Your task to perform on an android device: see tabs open on other devices in the chrome app Image 0: 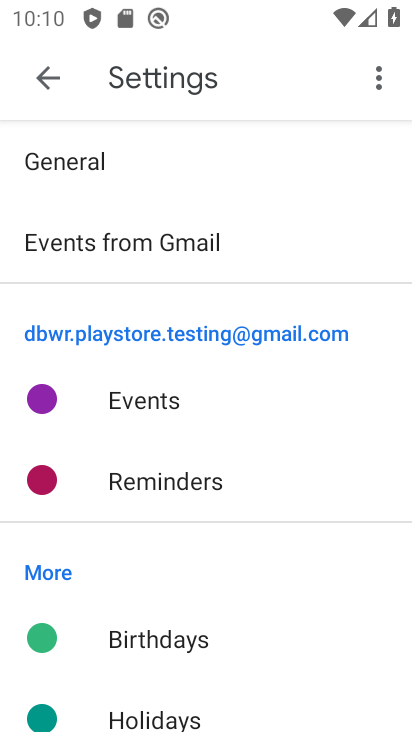
Step 0: press home button
Your task to perform on an android device: see tabs open on other devices in the chrome app Image 1: 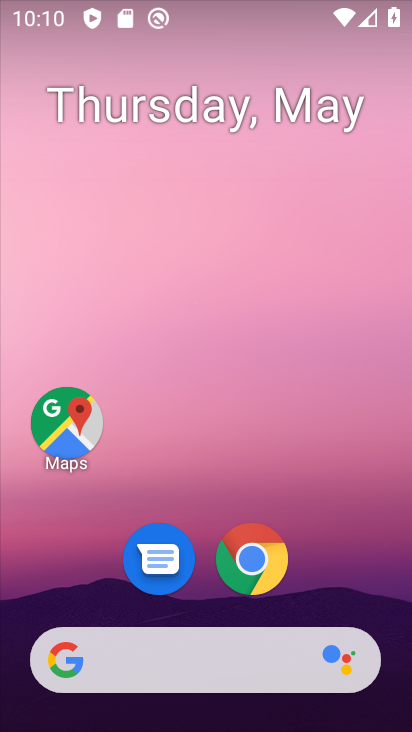
Step 1: drag from (344, 532) to (304, 64)
Your task to perform on an android device: see tabs open on other devices in the chrome app Image 2: 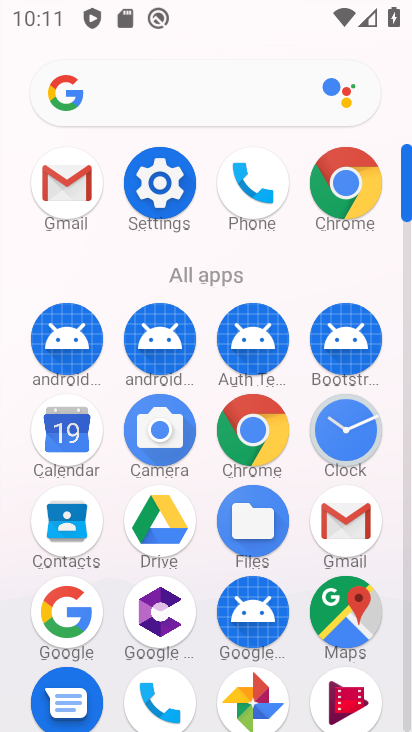
Step 2: click (342, 206)
Your task to perform on an android device: see tabs open on other devices in the chrome app Image 3: 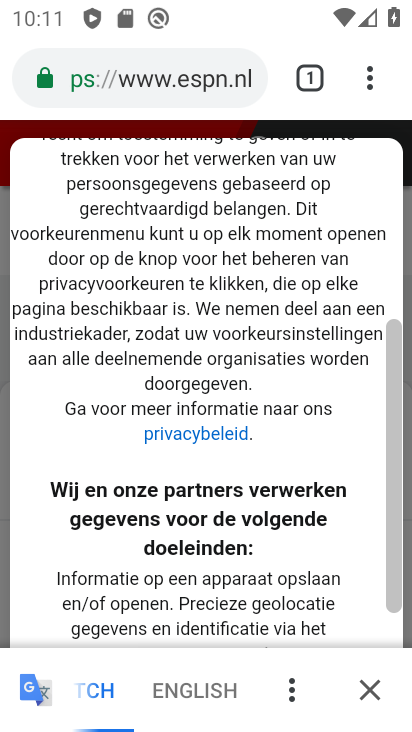
Step 3: drag from (362, 86) to (105, 388)
Your task to perform on an android device: see tabs open on other devices in the chrome app Image 4: 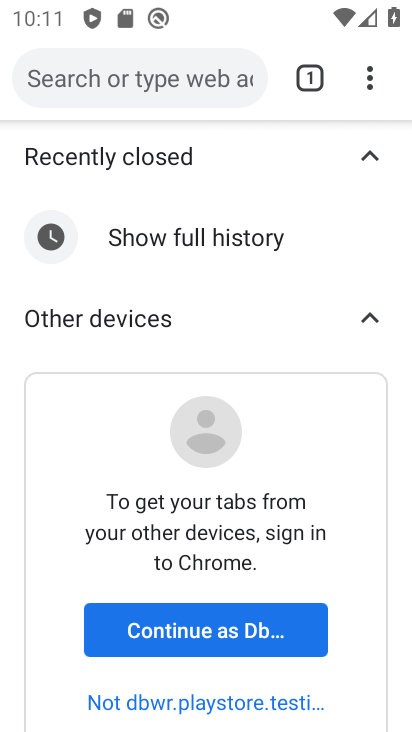
Step 4: drag from (365, 89) to (116, 368)
Your task to perform on an android device: see tabs open on other devices in the chrome app Image 5: 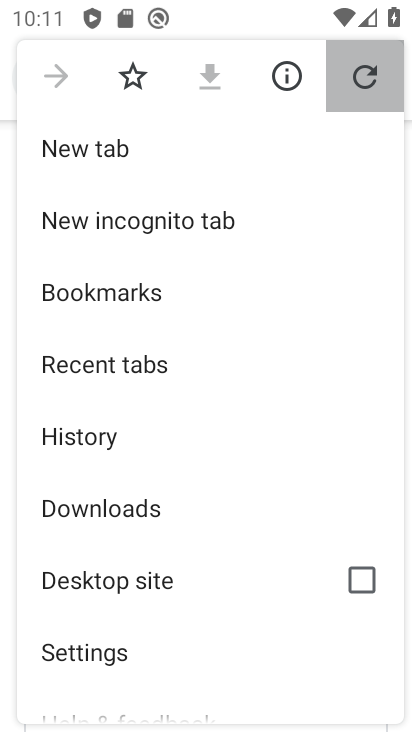
Step 5: drag from (363, 94) to (116, 368)
Your task to perform on an android device: see tabs open on other devices in the chrome app Image 6: 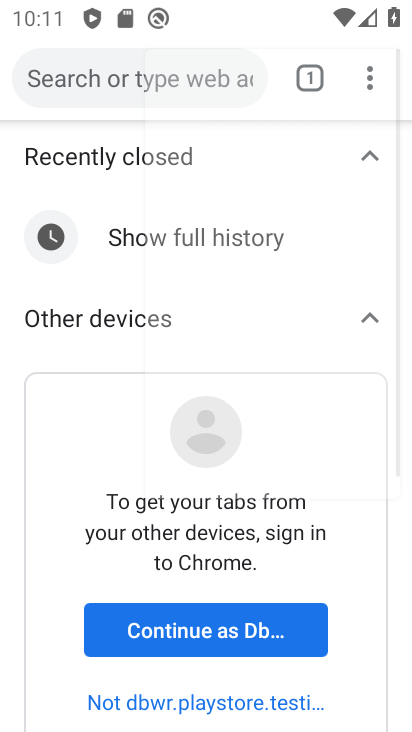
Step 6: drag from (363, 94) to (116, 368)
Your task to perform on an android device: see tabs open on other devices in the chrome app Image 7: 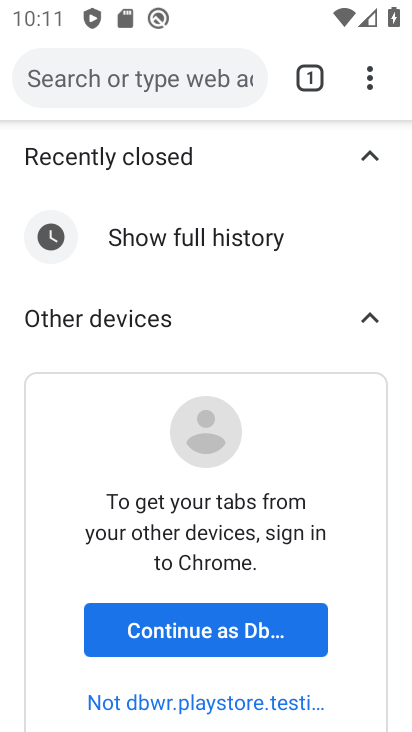
Step 7: drag from (225, 492) to (211, 206)
Your task to perform on an android device: see tabs open on other devices in the chrome app Image 8: 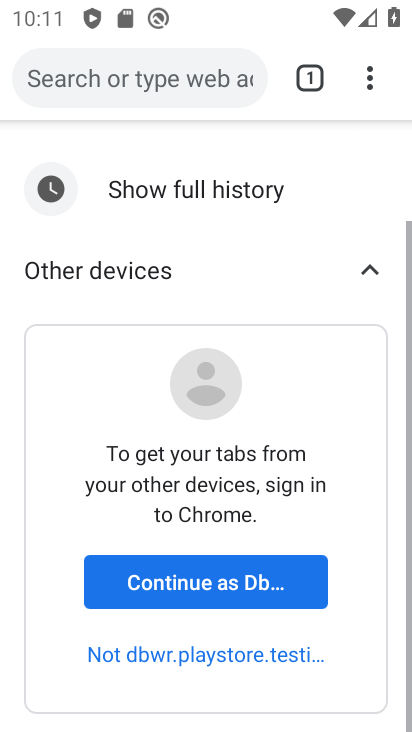
Step 8: click (234, 619)
Your task to perform on an android device: see tabs open on other devices in the chrome app Image 9: 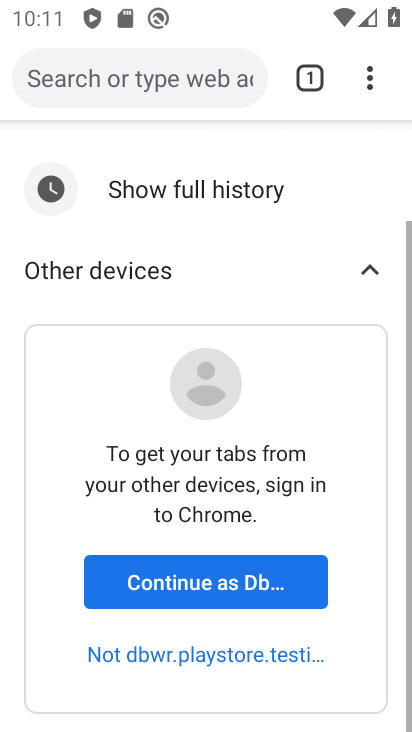
Step 9: click (231, 599)
Your task to perform on an android device: see tabs open on other devices in the chrome app Image 10: 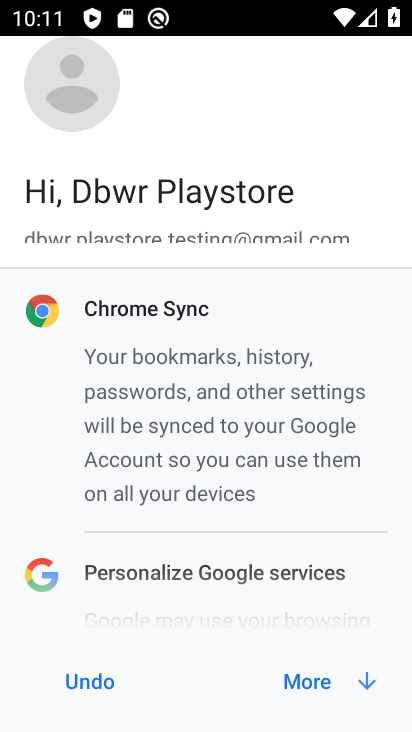
Step 10: click (304, 681)
Your task to perform on an android device: see tabs open on other devices in the chrome app Image 11: 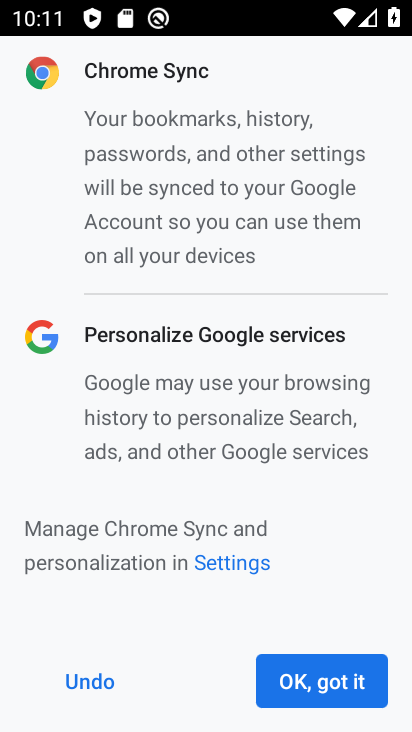
Step 11: click (304, 681)
Your task to perform on an android device: see tabs open on other devices in the chrome app Image 12: 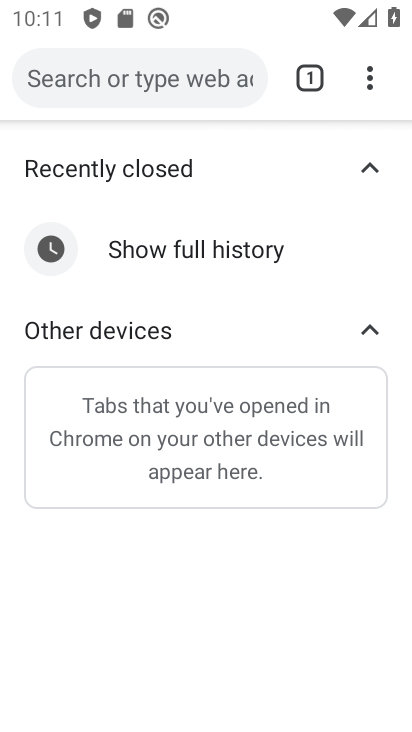
Step 12: task complete